Your task to perform on an android device: Open maps Image 0: 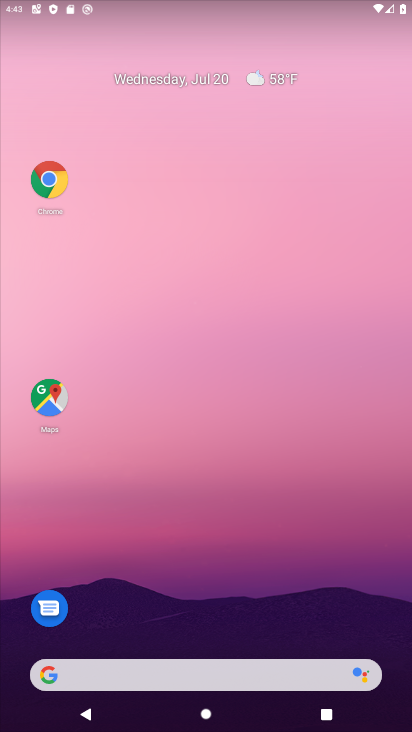
Step 0: drag from (218, 656) to (99, 286)
Your task to perform on an android device: Open maps Image 1: 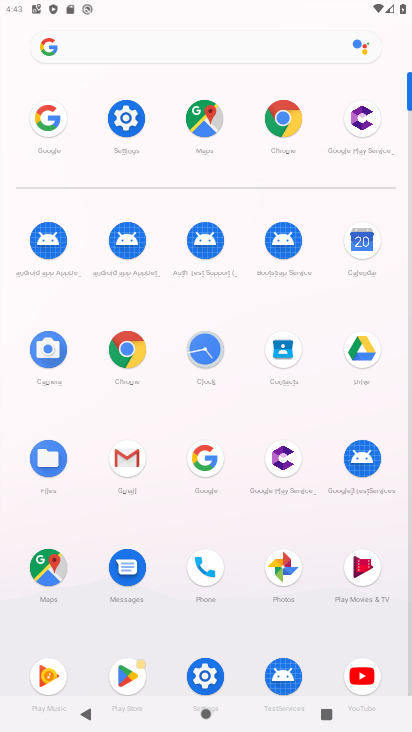
Step 1: click (38, 567)
Your task to perform on an android device: Open maps Image 2: 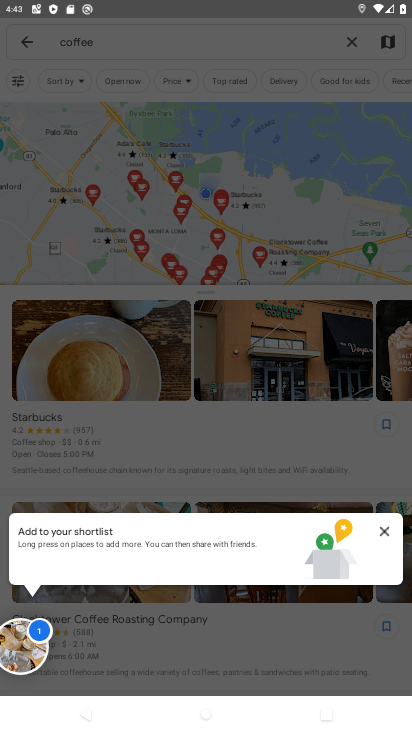
Step 2: click (249, 311)
Your task to perform on an android device: Open maps Image 3: 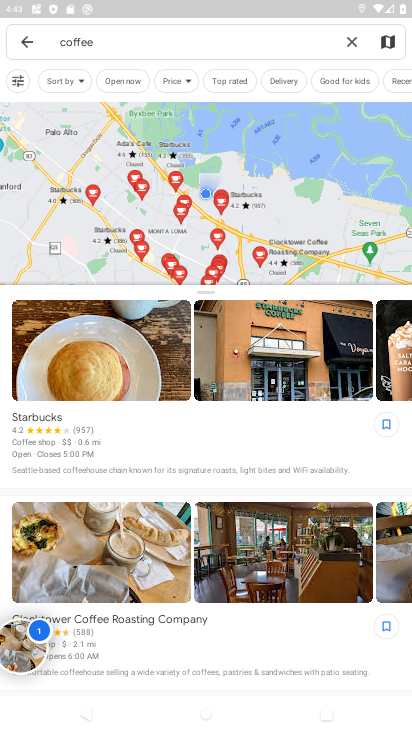
Step 3: task complete